Your task to perform on an android device: Open accessibility settings Image 0: 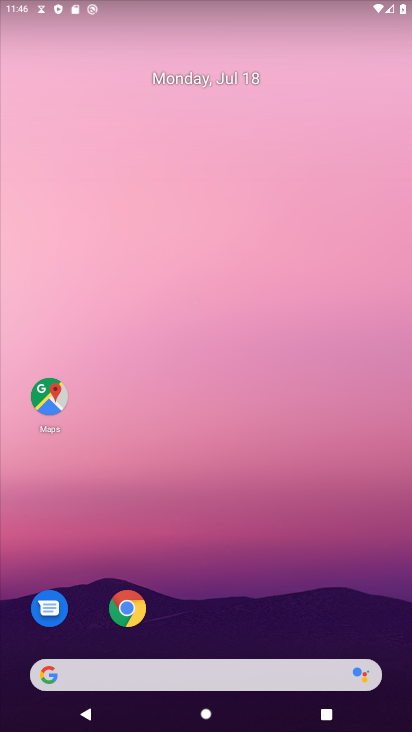
Step 0: drag from (324, 664) to (311, 63)
Your task to perform on an android device: Open accessibility settings Image 1: 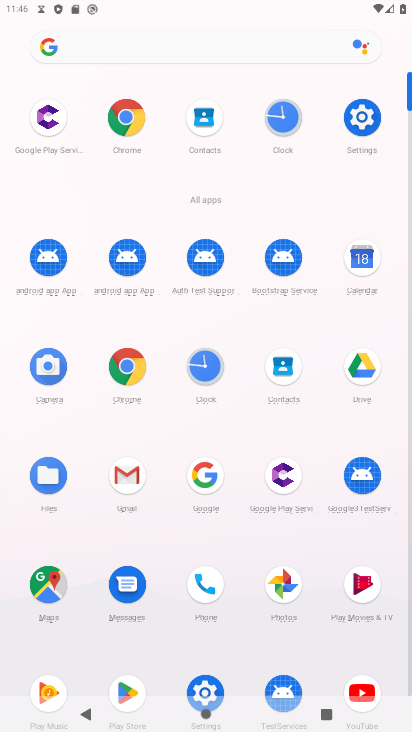
Step 1: click (357, 118)
Your task to perform on an android device: Open accessibility settings Image 2: 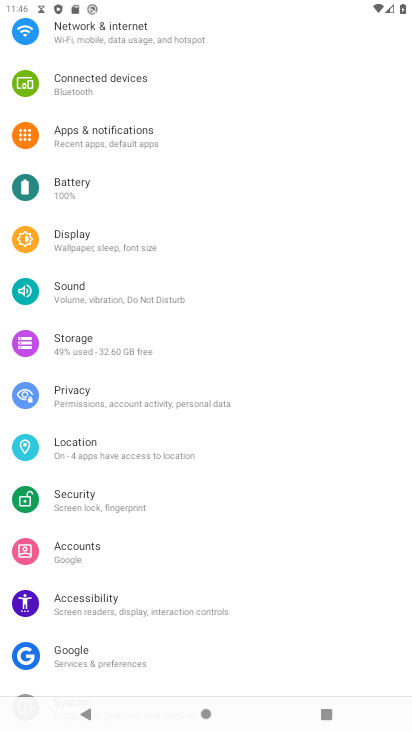
Step 2: click (139, 605)
Your task to perform on an android device: Open accessibility settings Image 3: 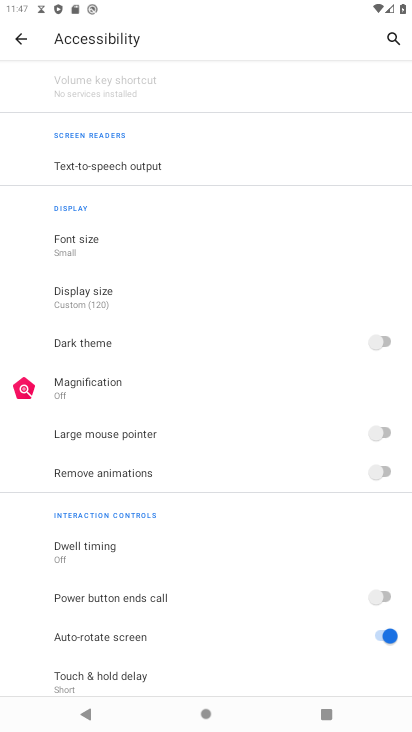
Step 3: task complete